Your task to perform on an android device: set an alarm Image 0: 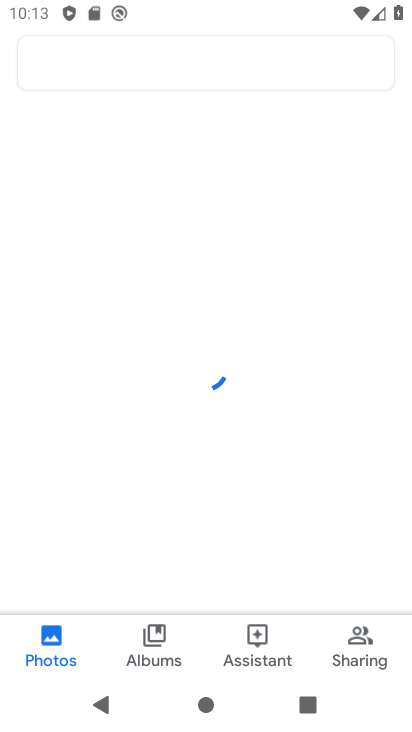
Step 0: press home button
Your task to perform on an android device: set an alarm Image 1: 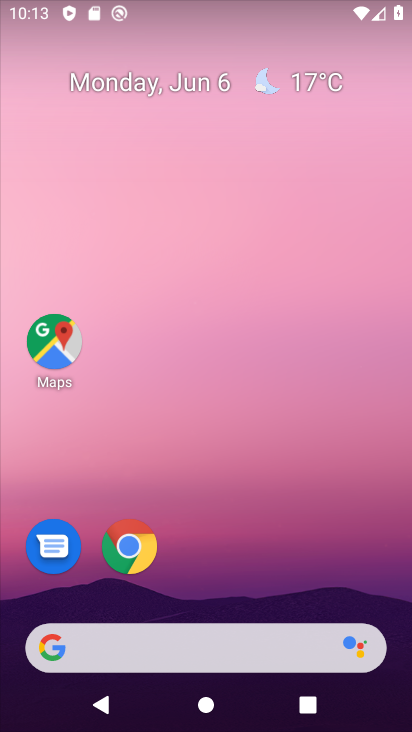
Step 1: drag from (202, 561) to (330, 0)
Your task to perform on an android device: set an alarm Image 2: 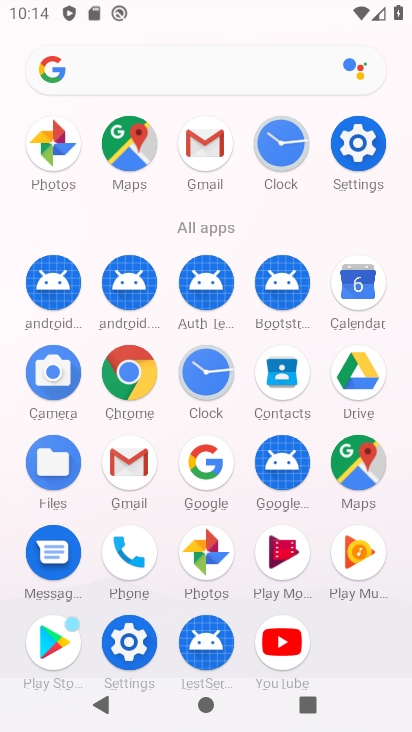
Step 2: click (273, 152)
Your task to perform on an android device: set an alarm Image 3: 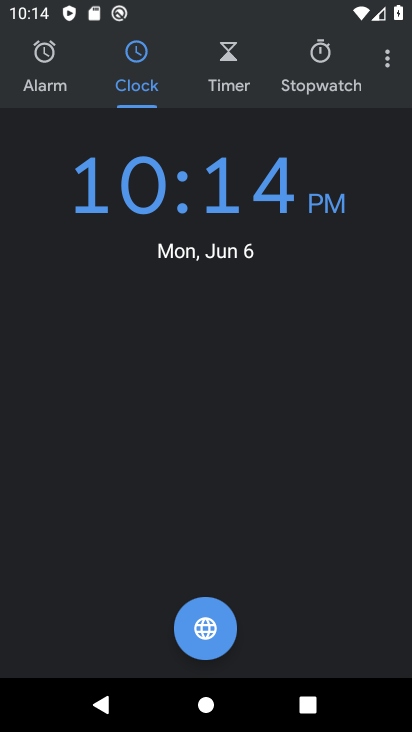
Step 3: click (55, 87)
Your task to perform on an android device: set an alarm Image 4: 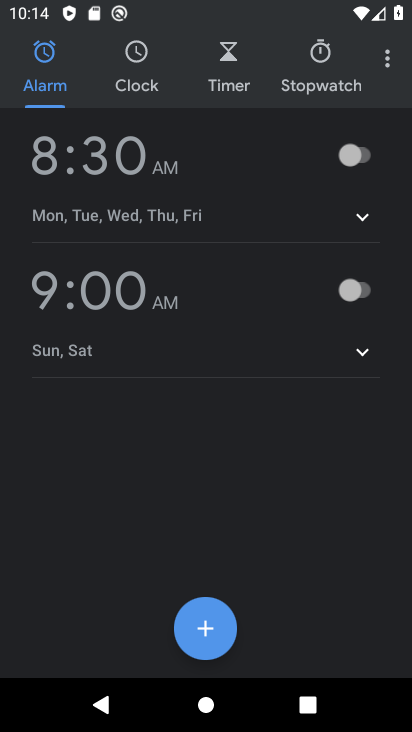
Step 4: click (363, 219)
Your task to perform on an android device: set an alarm Image 5: 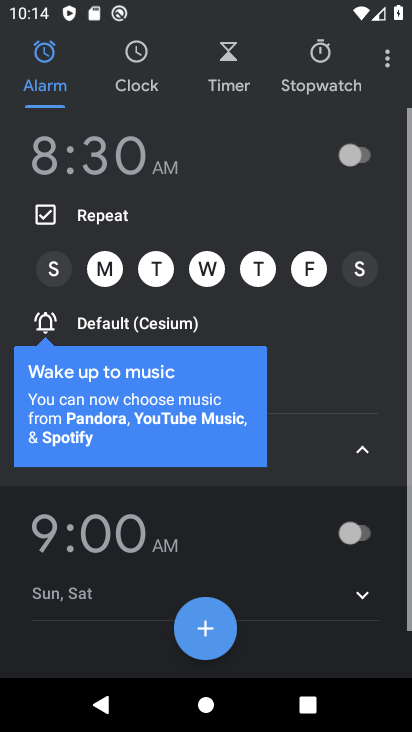
Step 5: click (369, 159)
Your task to perform on an android device: set an alarm Image 6: 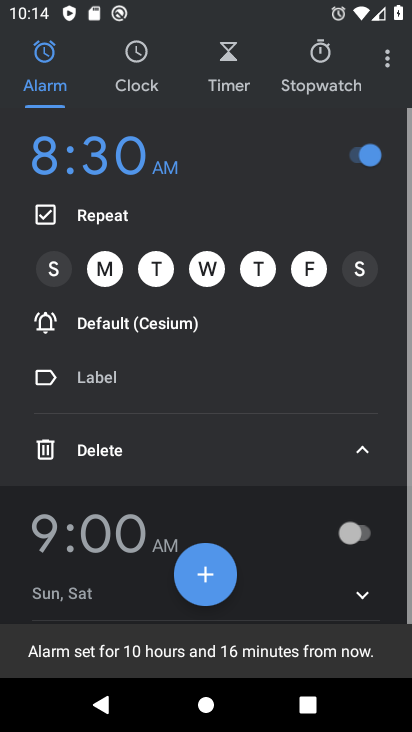
Step 6: click (317, 273)
Your task to perform on an android device: set an alarm Image 7: 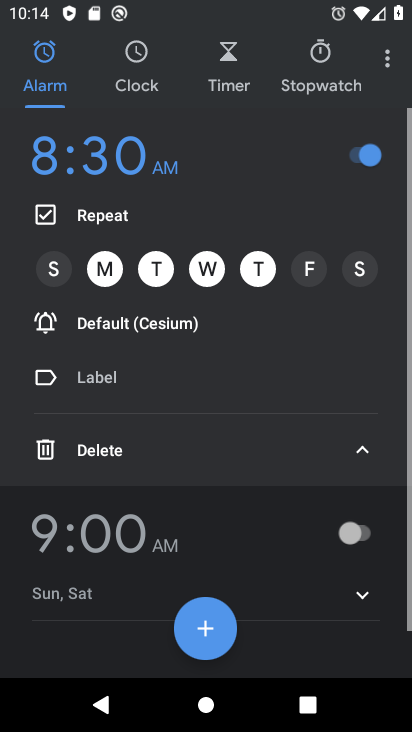
Step 7: click (133, 277)
Your task to perform on an android device: set an alarm Image 8: 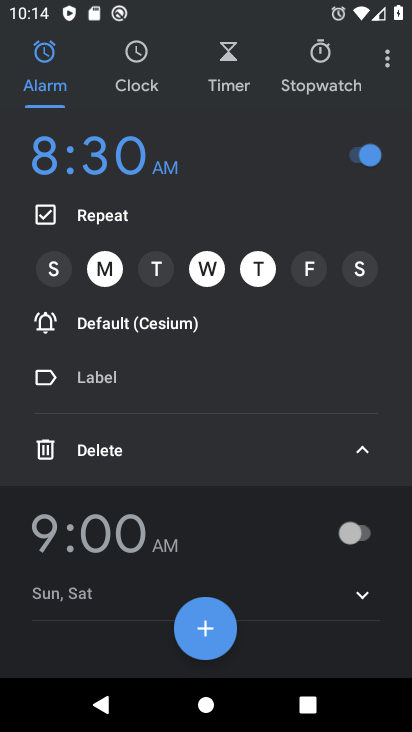
Step 8: task complete